Your task to perform on an android device: toggle airplane mode Image 0: 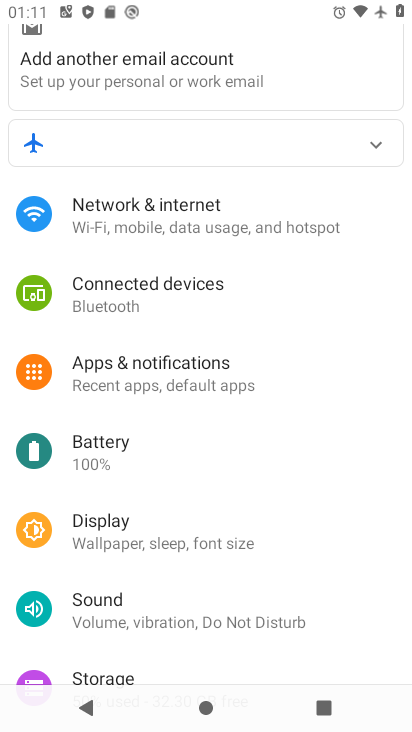
Step 0: click (135, 210)
Your task to perform on an android device: toggle airplane mode Image 1: 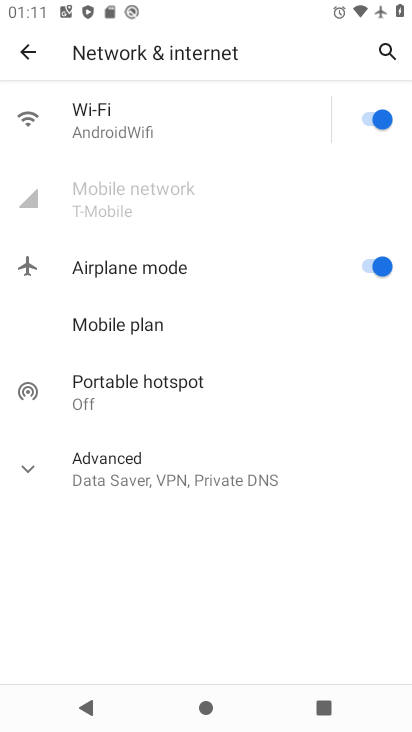
Step 1: click (381, 262)
Your task to perform on an android device: toggle airplane mode Image 2: 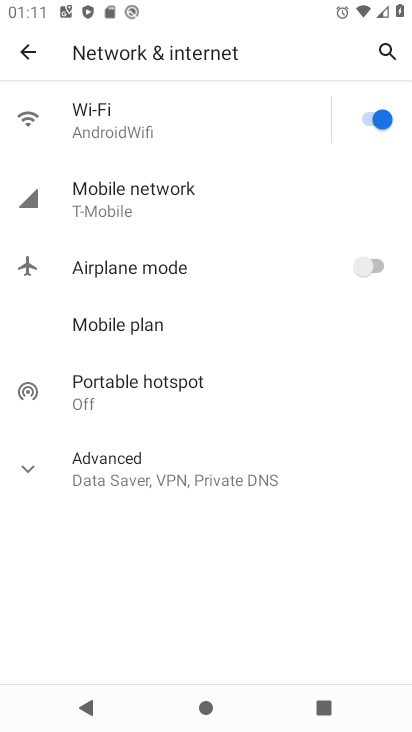
Step 2: task complete